Your task to perform on an android device: turn off location Image 0: 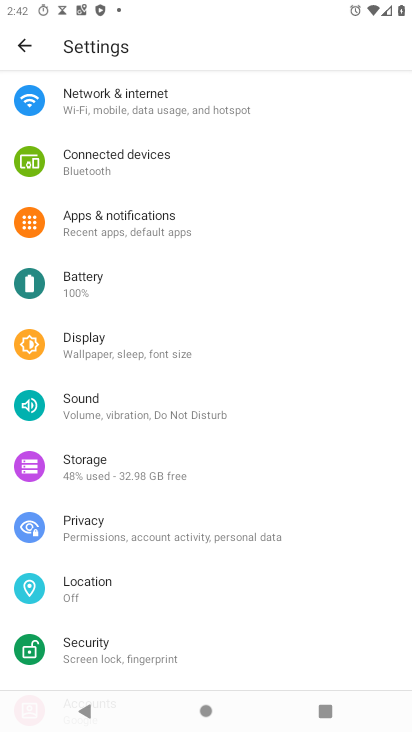
Step 0: click (56, 592)
Your task to perform on an android device: turn off location Image 1: 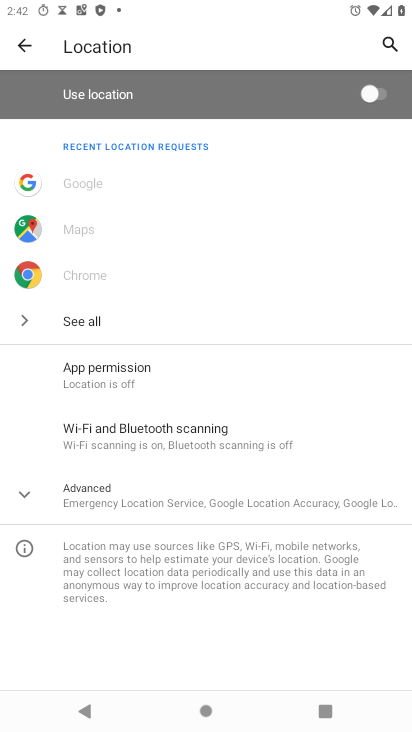
Step 1: task complete